Your task to perform on an android device: Open display settings Image 0: 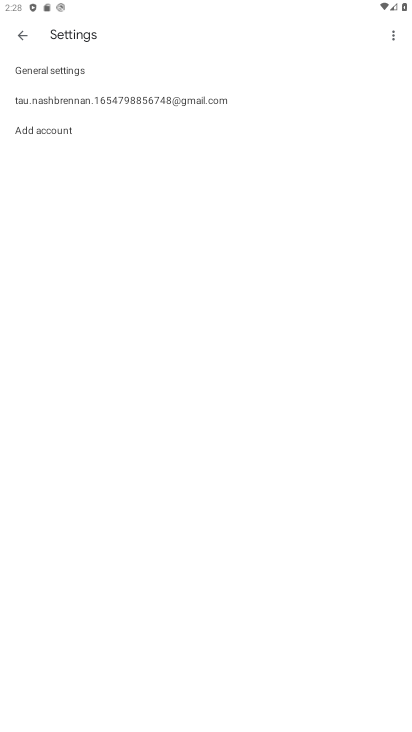
Step 0: press home button
Your task to perform on an android device: Open display settings Image 1: 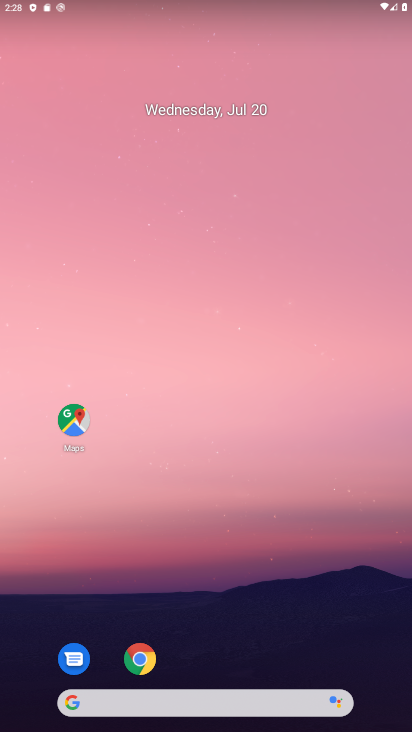
Step 1: drag from (223, 658) to (251, 101)
Your task to perform on an android device: Open display settings Image 2: 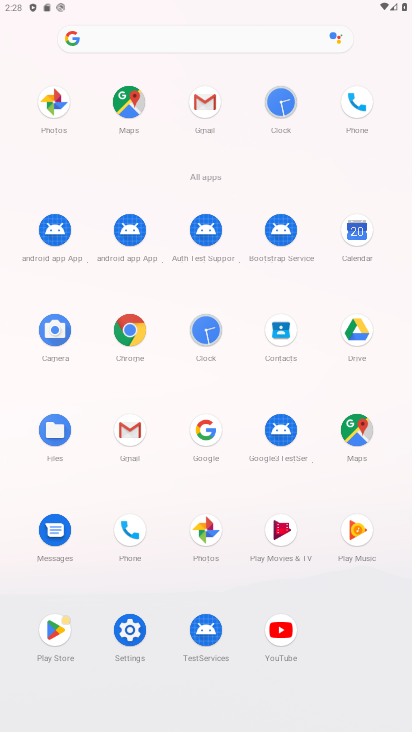
Step 2: click (127, 628)
Your task to perform on an android device: Open display settings Image 3: 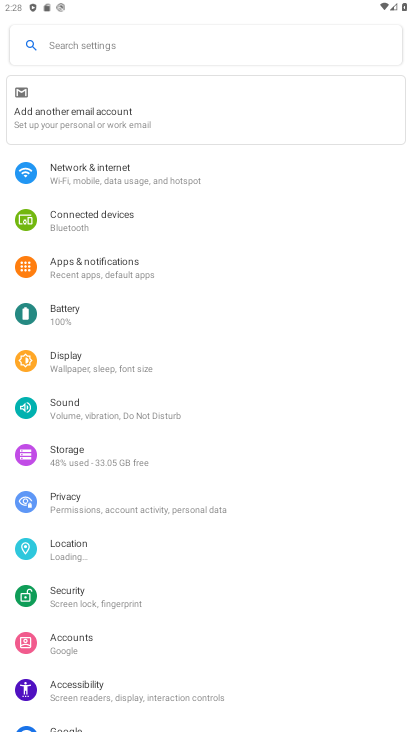
Step 3: click (47, 370)
Your task to perform on an android device: Open display settings Image 4: 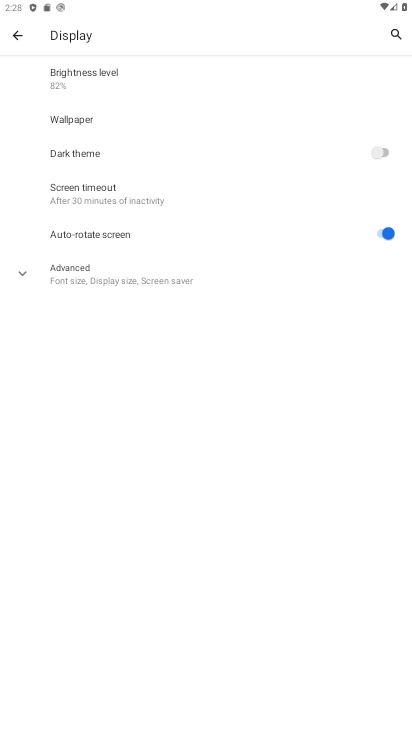
Step 4: task complete